Your task to perform on an android device: turn on data saver in the chrome app Image 0: 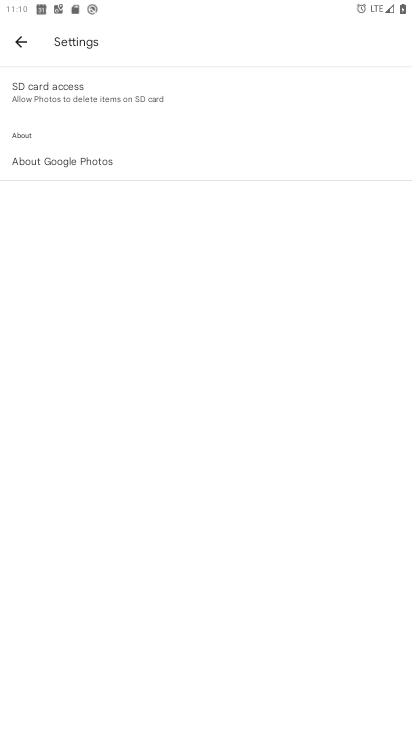
Step 0: press home button
Your task to perform on an android device: turn on data saver in the chrome app Image 1: 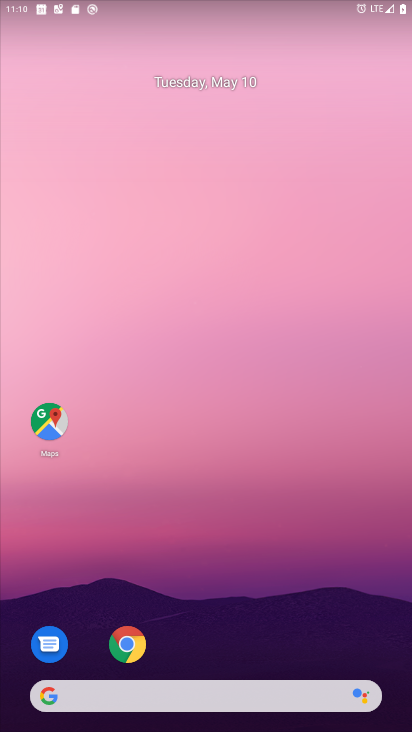
Step 1: drag from (230, 669) to (296, 170)
Your task to perform on an android device: turn on data saver in the chrome app Image 2: 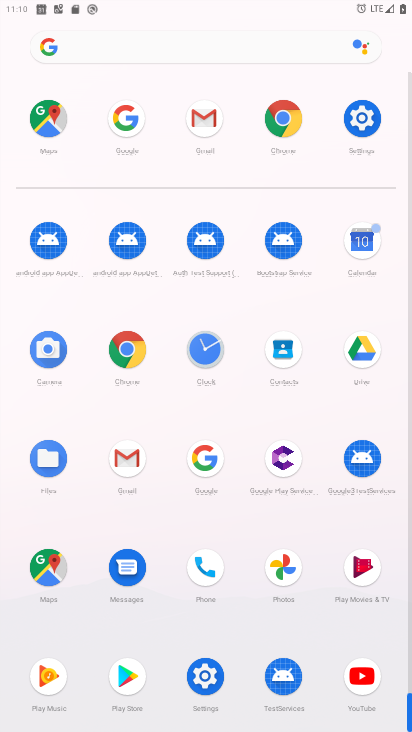
Step 2: click (291, 116)
Your task to perform on an android device: turn on data saver in the chrome app Image 3: 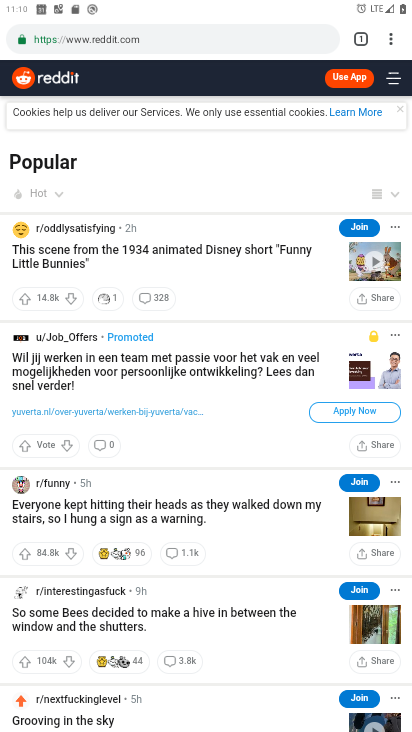
Step 3: click (391, 40)
Your task to perform on an android device: turn on data saver in the chrome app Image 4: 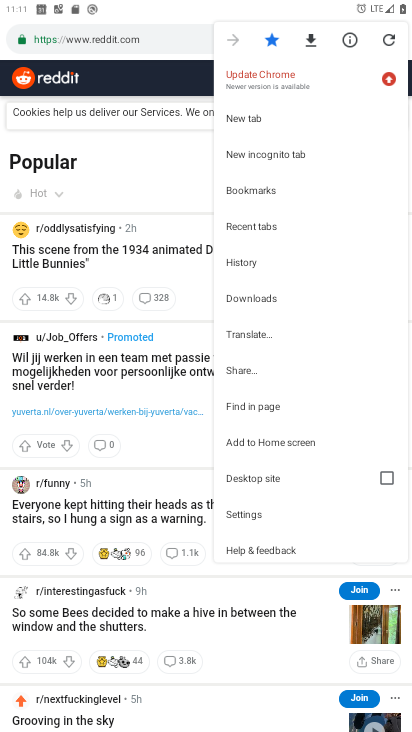
Step 4: click (251, 513)
Your task to perform on an android device: turn on data saver in the chrome app Image 5: 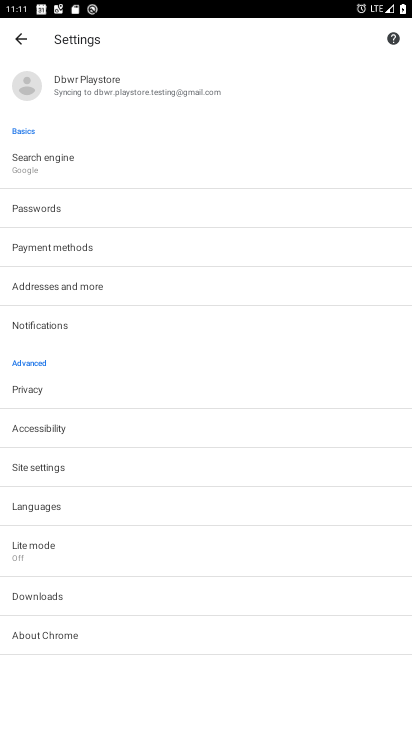
Step 5: drag from (251, 513) to (266, 282)
Your task to perform on an android device: turn on data saver in the chrome app Image 6: 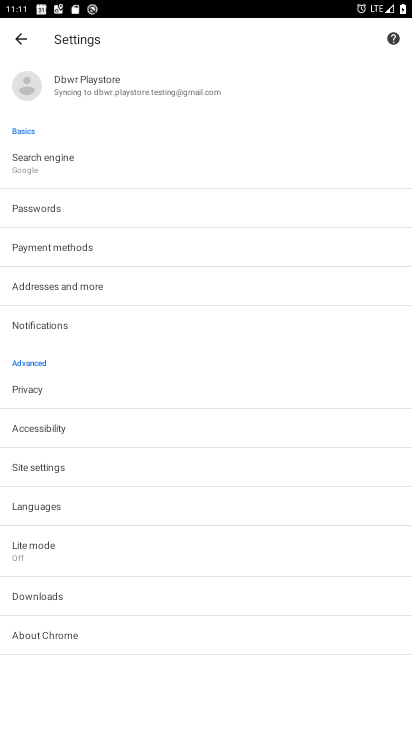
Step 6: click (103, 542)
Your task to perform on an android device: turn on data saver in the chrome app Image 7: 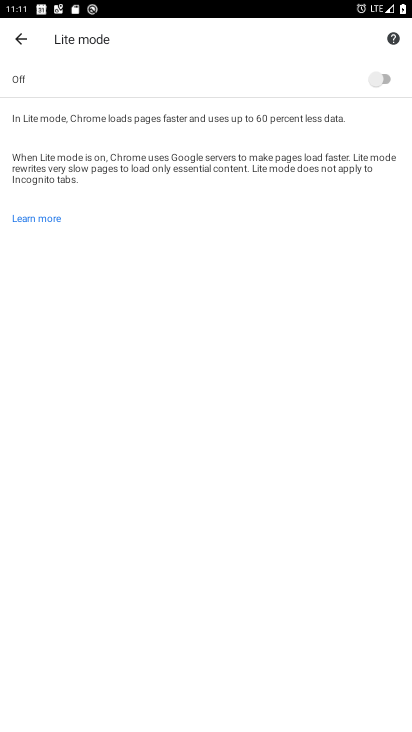
Step 7: click (387, 75)
Your task to perform on an android device: turn on data saver in the chrome app Image 8: 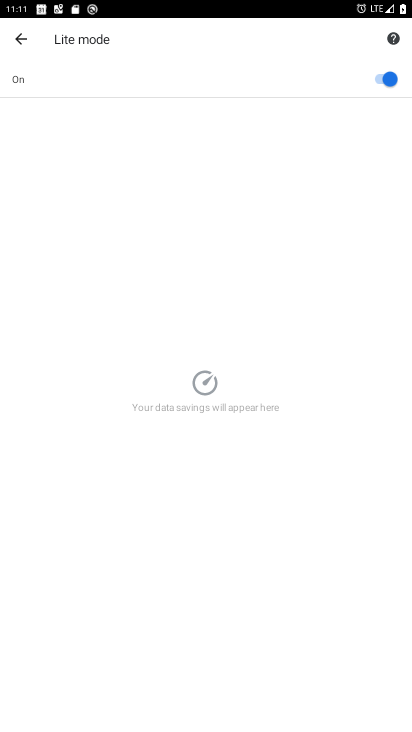
Step 8: task complete